Your task to perform on an android device: change the clock display to analog Image 0: 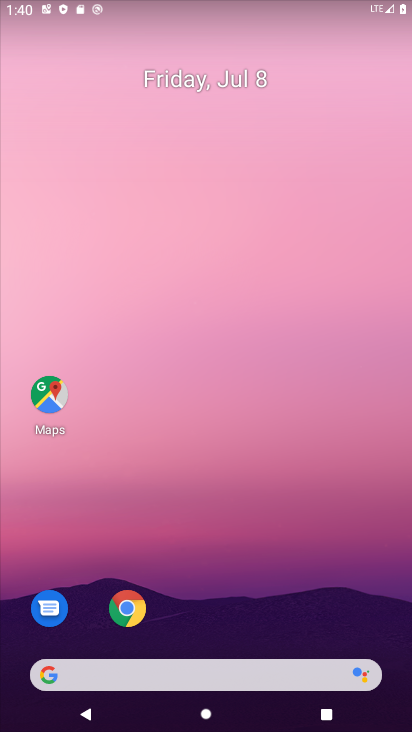
Step 0: drag from (369, 653) to (320, 213)
Your task to perform on an android device: change the clock display to analog Image 1: 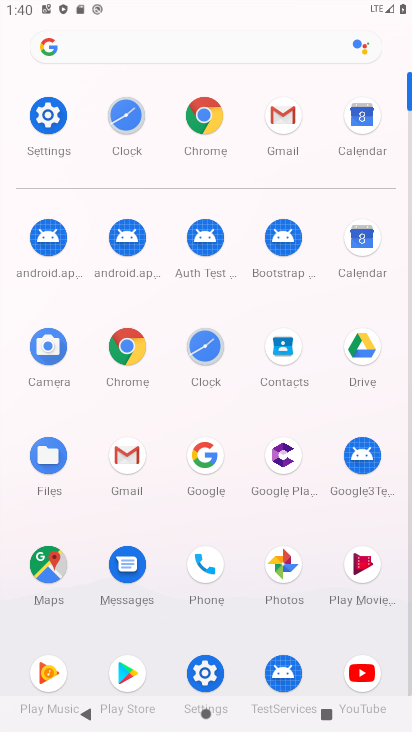
Step 1: click (210, 344)
Your task to perform on an android device: change the clock display to analog Image 2: 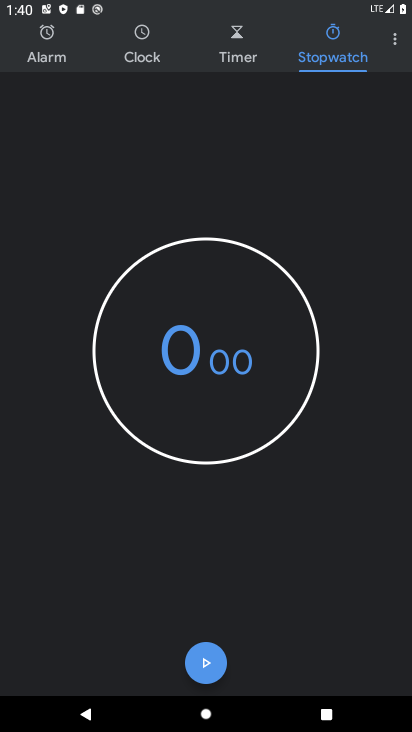
Step 2: click (398, 44)
Your task to perform on an android device: change the clock display to analog Image 3: 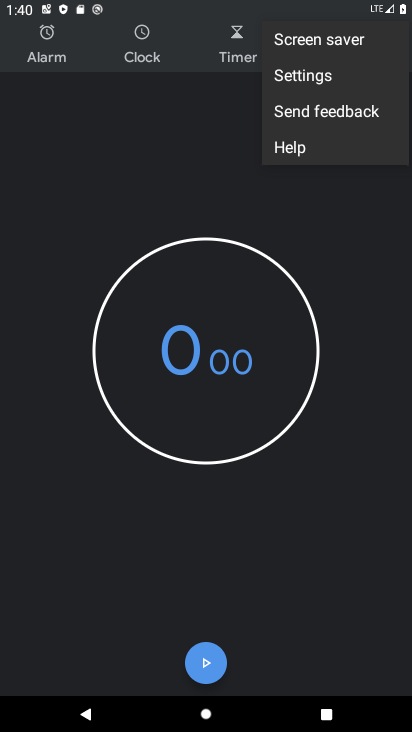
Step 3: click (314, 78)
Your task to perform on an android device: change the clock display to analog Image 4: 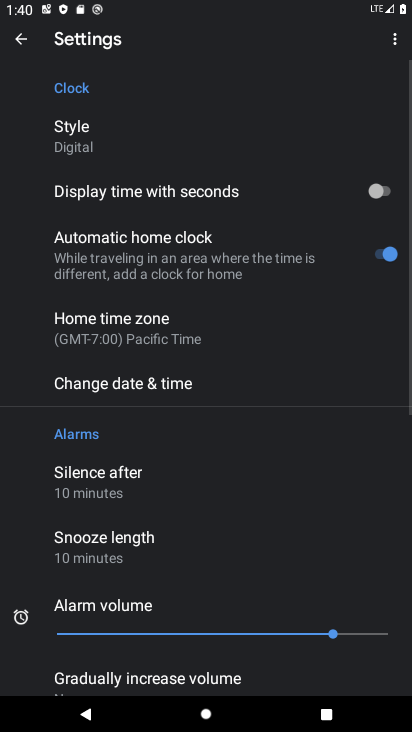
Step 4: click (85, 125)
Your task to perform on an android device: change the clock display to analog Image 5: 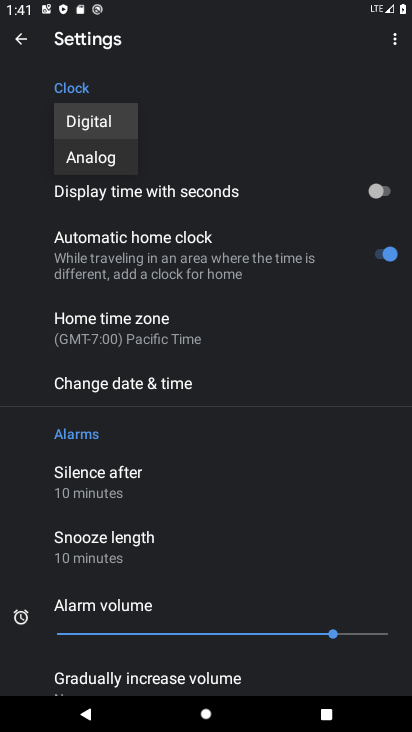
Step 5: click (89, 156)
Your task to perform on an android device: change the clock display to analog Image 6: 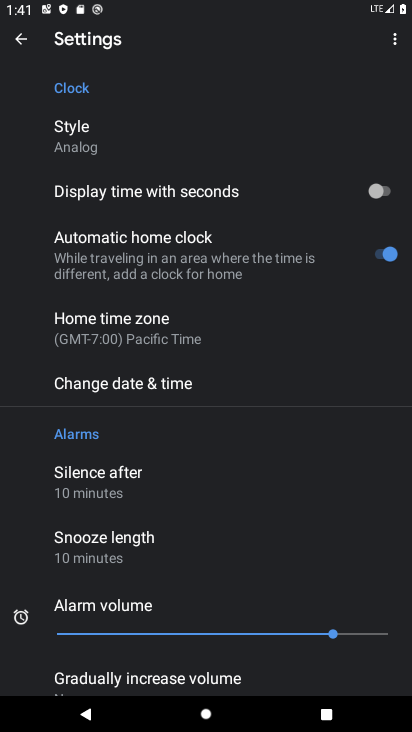
Step 6: task complete